Your task to perform on an android device: Check the weather Image 0: 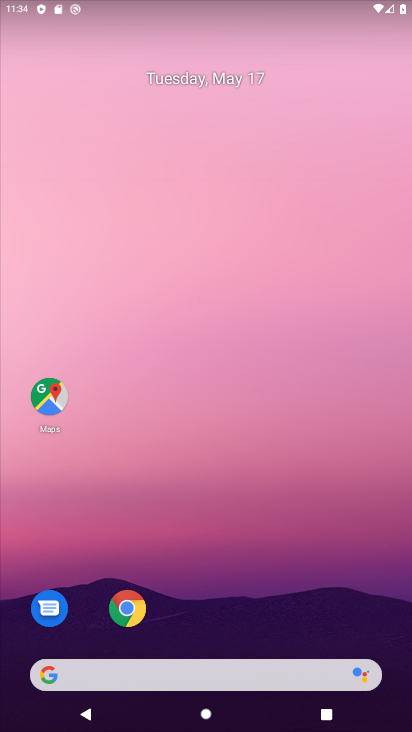
Step 0: click (251, 678)
Your task to perform on an android device: Check the weather Image 1: 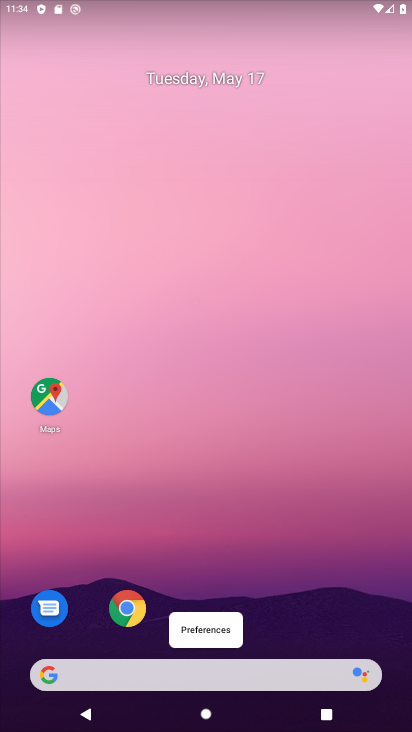
Step 1: click (251, 674)
Your task to perform on an android device: Check the weather Image 2: 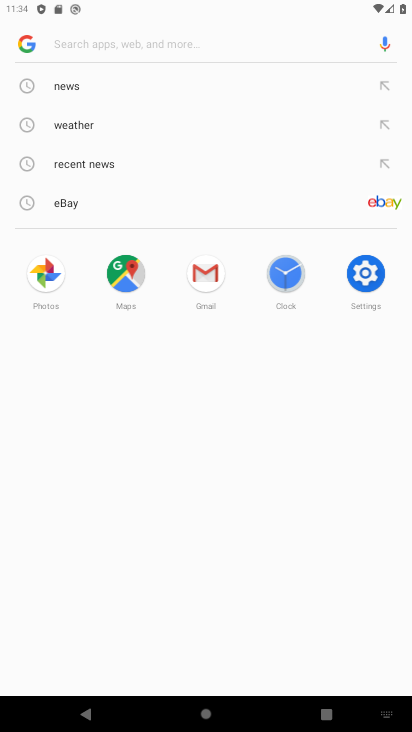
Step 2: click (81, 130)
Your task to perform on an android device: Check the weather Image 3: 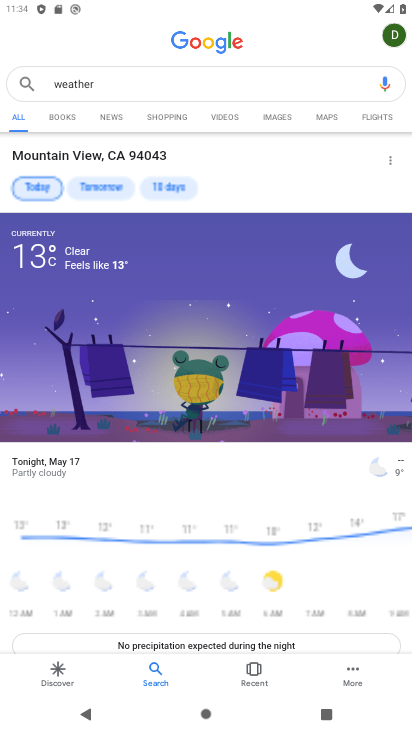
Step 3: task complete